Your task to perform on an android device: Open calendar and show me the third week of next month Image 0: 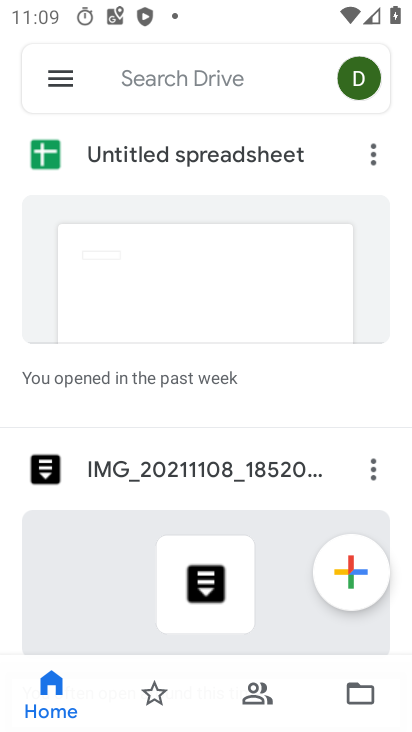
Step 0: press home button
Your task to perform on an android device: Open calendar and show me the third week of next month Image 1: 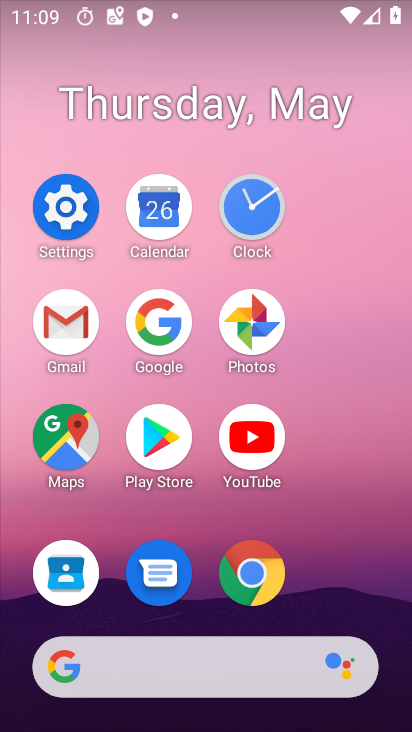
Step 1: click (155, 190)
Your task to perform on an android device: Open calendar and show me the third week of next month Image 2: 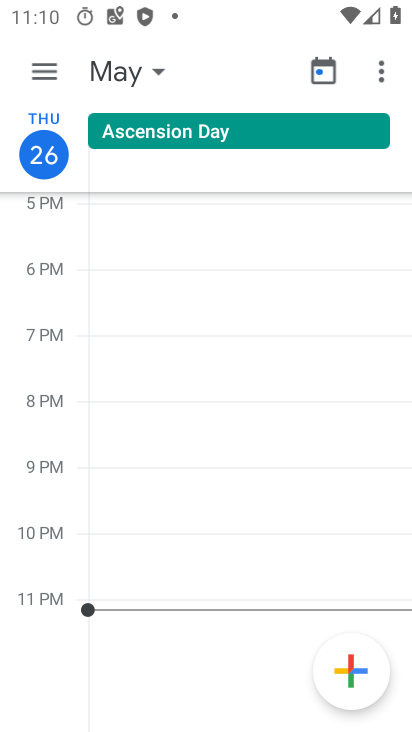
Step 2: click (121, 71)
Your task to perform on an android device: Open calendar and show me the third week of next month Image 3: 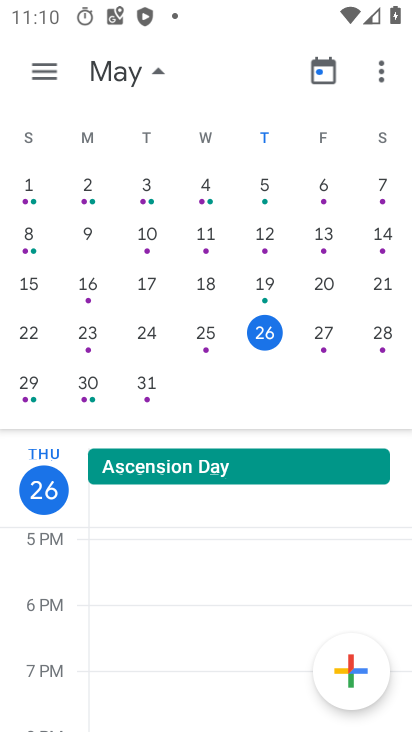
Step 3: drag from (394, 276) to (0, 253)
Your task to perform on an android device: Open calendar and show me the third week of next month Image 4: 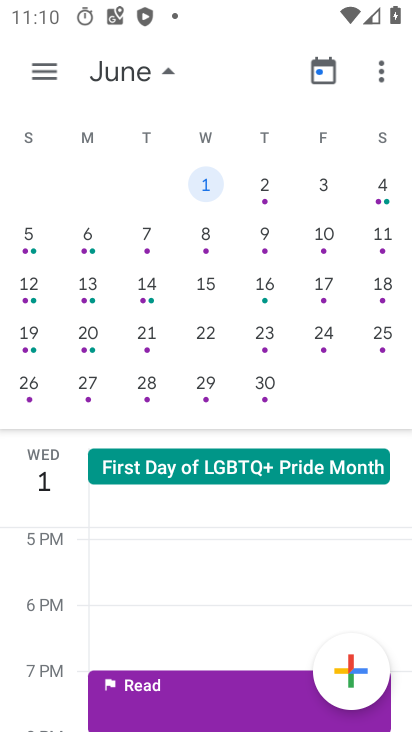
Step 4: click (52, 70)
Your task to perform on an android device: Open calendar and show me the third week of next month Image 5: 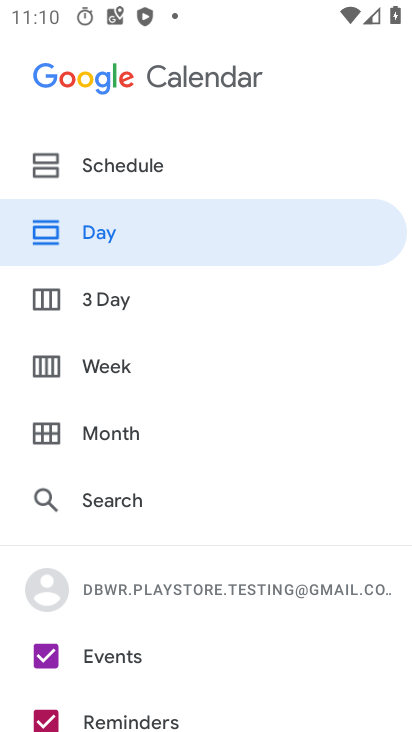
Step 5: click (129, 370)
Your task to perform on an android device: Open calendar and show me the third week of next month Image 6: 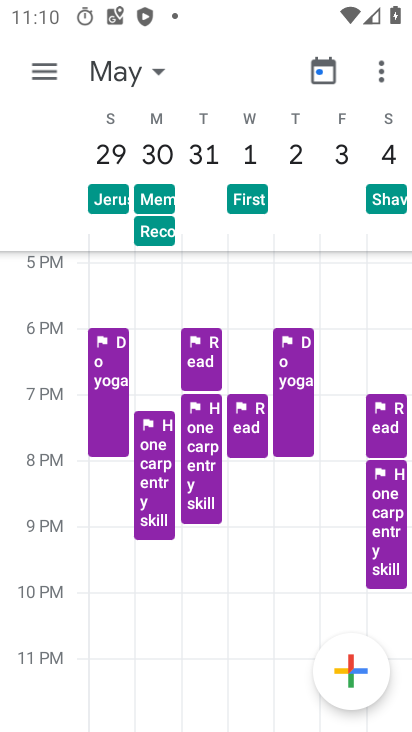
Step 6: task complete